Your task to perform on an android device: read, delete, or share a saved page in the chrome app Image 0: 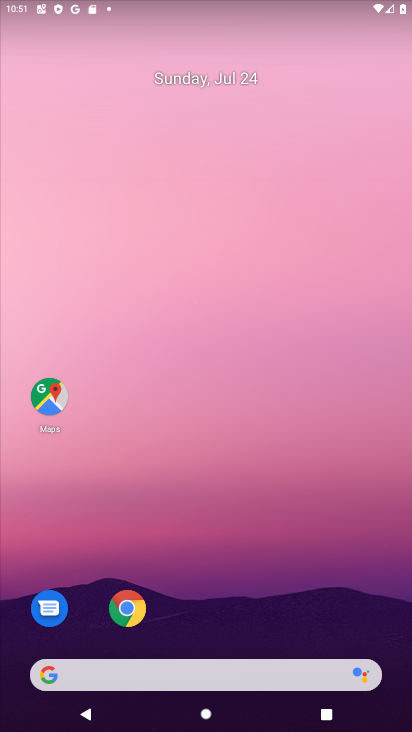
Step 0: press home button
Your task to perform on an android device: read, delete, or share a saved page in the chrome app Image 1: 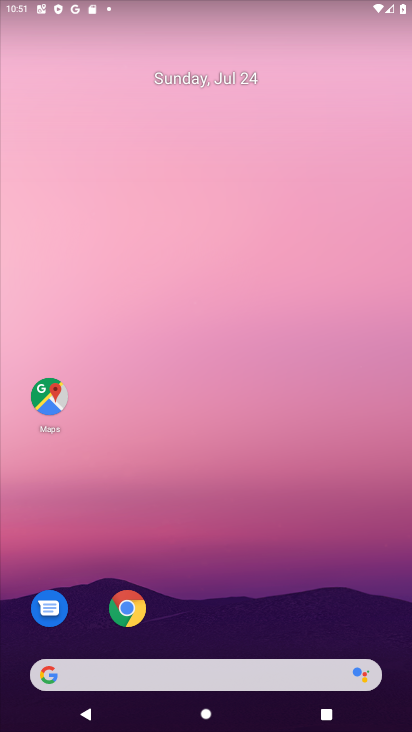
Step 1: click (127, 607)
Your task to perform on an android device: read, delete, or share a saved page in the chrome app Image 2: 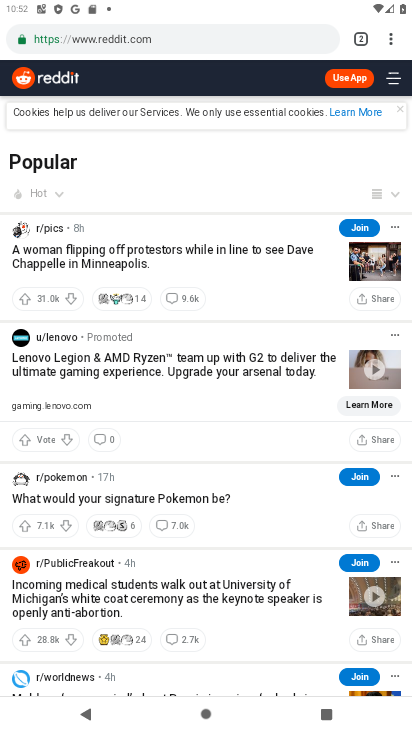
Step 2: click (387, 34)
Your task to perform on an android device: read, delete, or share a saved page in the chrome app Image 3: 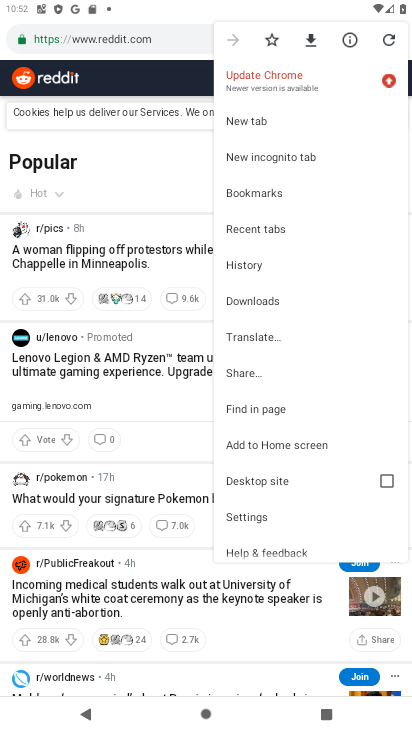
Step 3: click (273, 297)
Your task to perform on an android device: read, delete, or share a saved page in the chrome app Image 4: 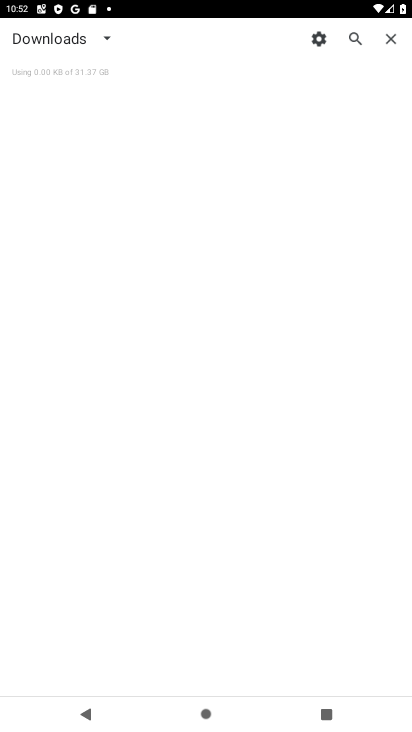
Step 4: task complete